Your task to perform on an android device: Check the weather Image 0: 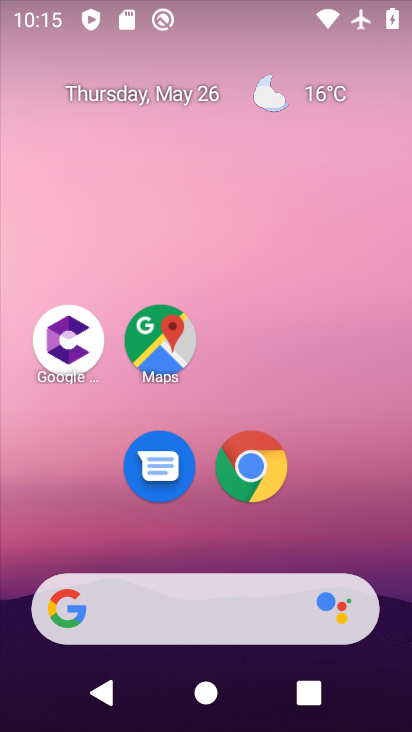
Step 0: click (227, 594)
Your task to perform on an android device: Check the weather Image 1: 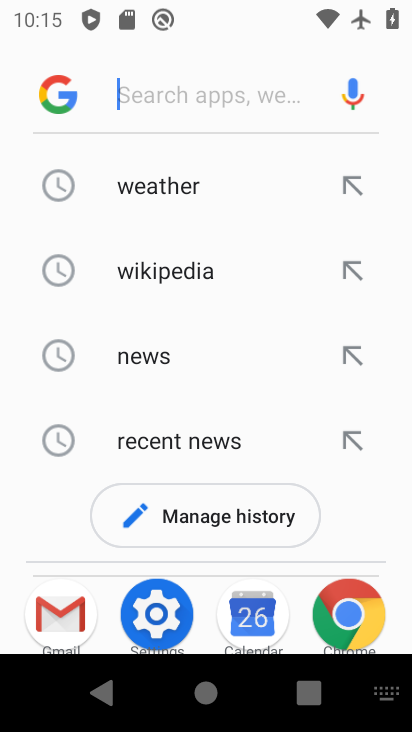
Step 1: click (149, 182)
Your task to perform on an android device: Check the weather Image 2: 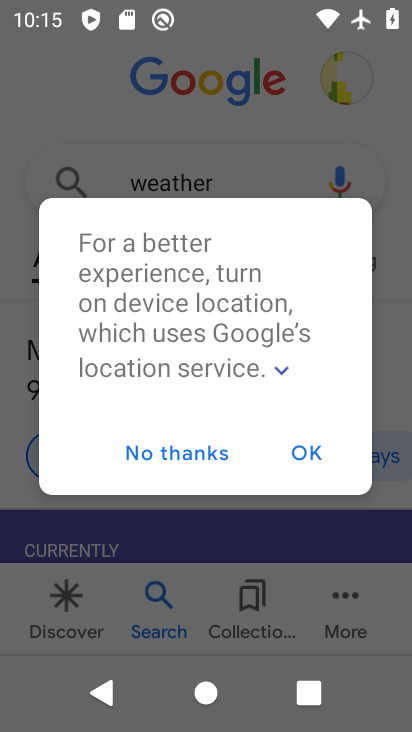
Step 2: click (301, 454)
Your task to perform on an android device: Check the weather Image 3: 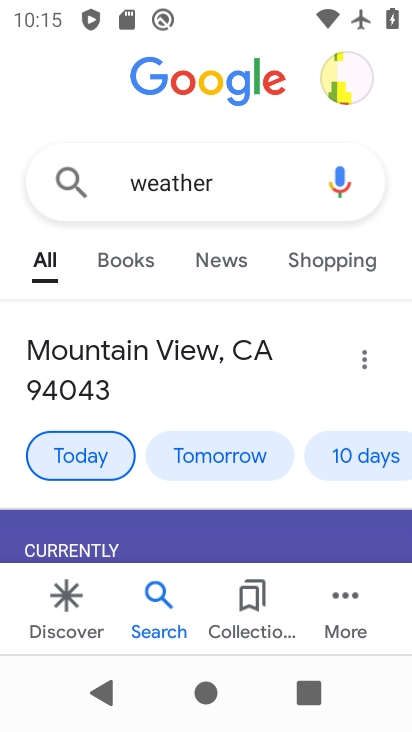
Step 3: task complete